Your task to perform on an android device: create a new album in the google photos Image 0: 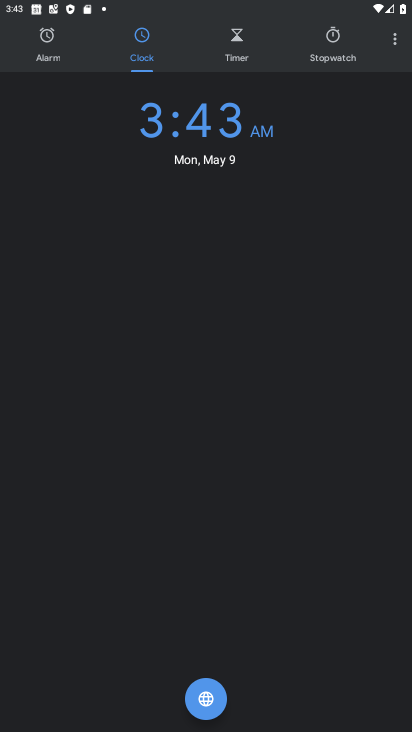
Step 0: press home button
Your task to perform on an android device: create a new album in the google photos Image 1: 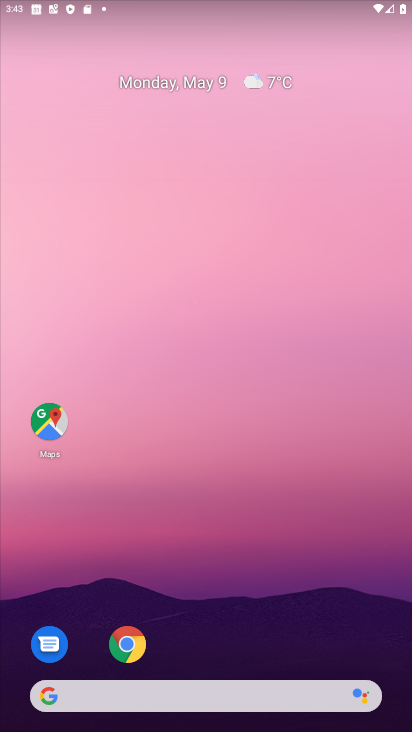
Step 1: drag from (288, 622) to (63, 111)
Your task to perform on an android device: create a new album in the google photos Image 2: 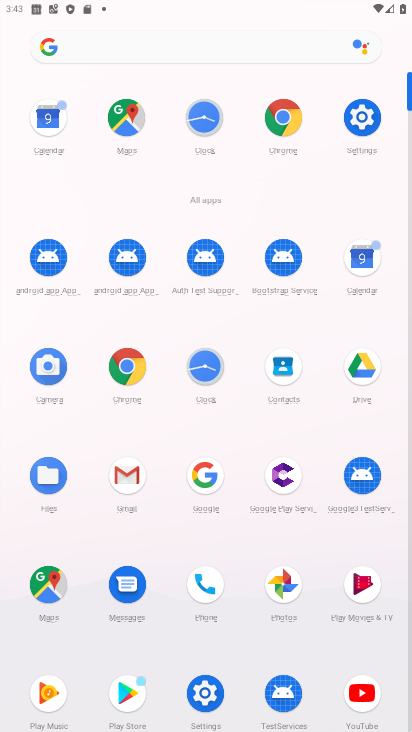
Step 2: click (281, 573)
Your task to perform on an android device: create a new album in the google photos Image 3: 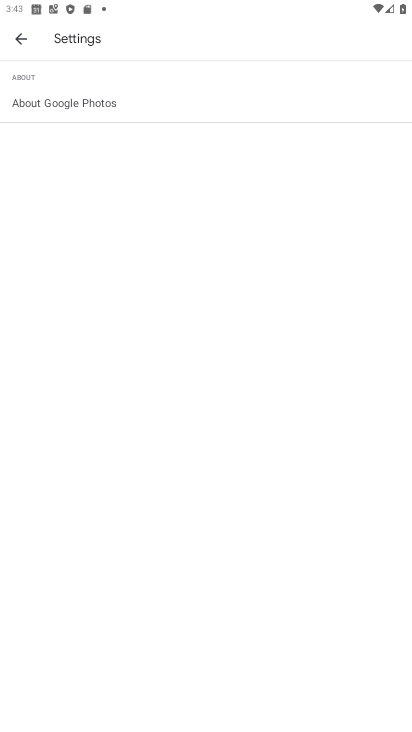
Step 3: click (20, 51)
Your task to perform on an android device: create a new album in the google photos Image 4: 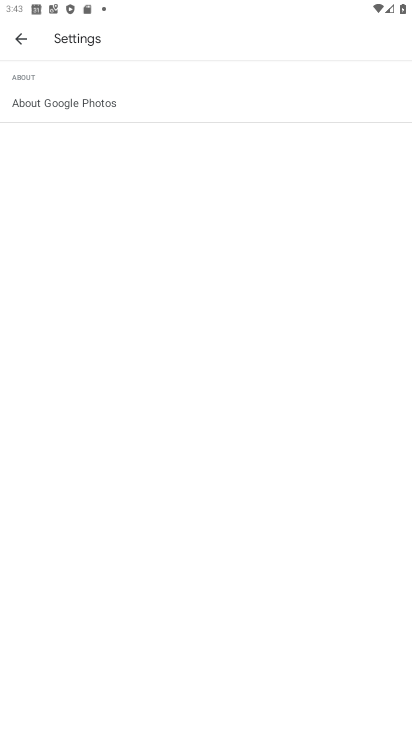
Step 4: click (20, 48)
Your task to perform on an android device: create a new album in the google photos Image 5: 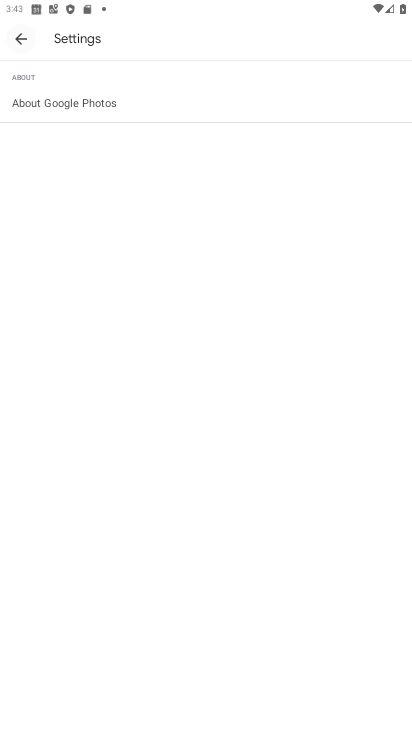
Step 5: click (20, 48)
Your task to perform on an android device: create a new album in the google photos Image 6: 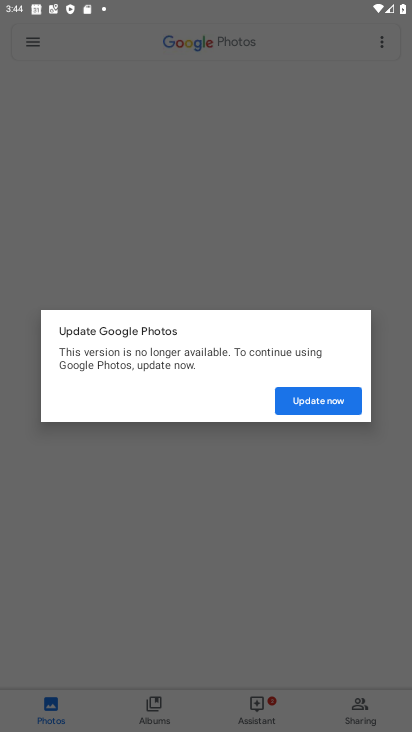
Step 6: click (303, 399)
Your task to perform on an android device: create a new album in the google photos Image 7: 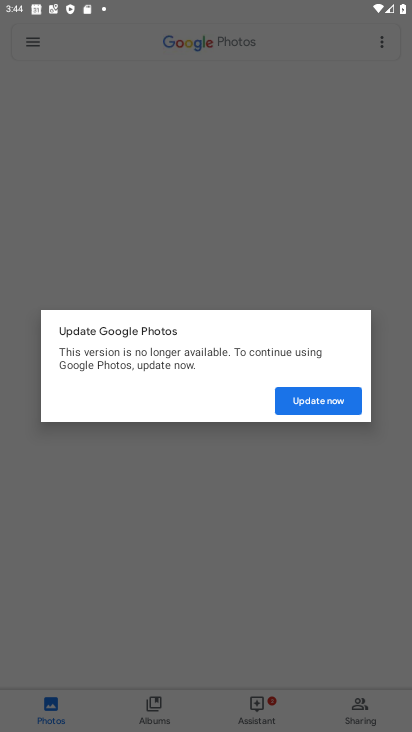
Step 7: click (303, 399)
Your task to perform on an android device: create a new album in the google photos Image 8: 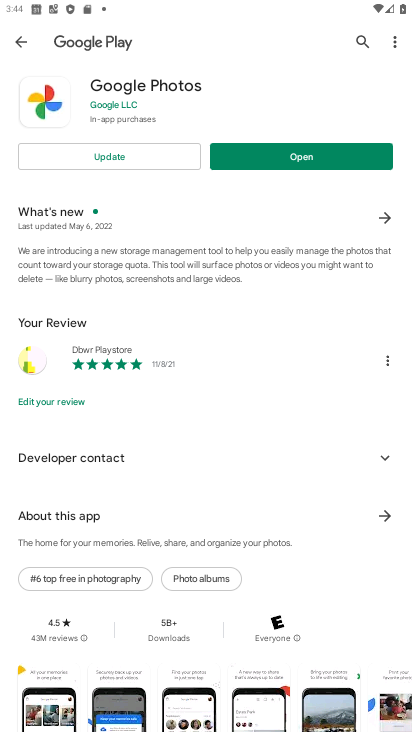
Step 8: click (315, 165)
Your task to perform on an android device: create a new album in the google photos Image 9: 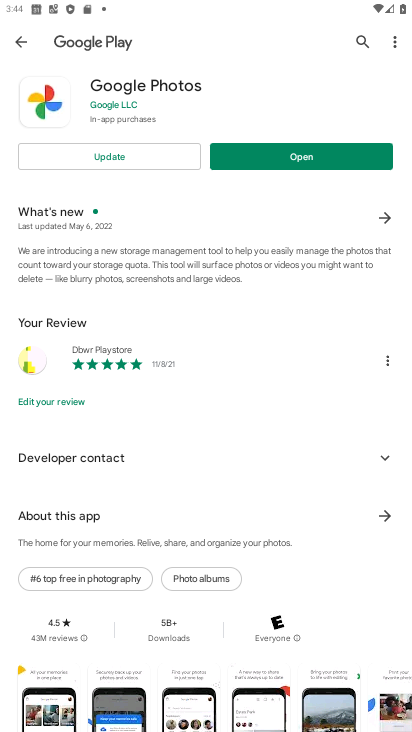
Step 9: click (315, 165)
Your task to perform on an android device: create a new album in the google photos Image 10: 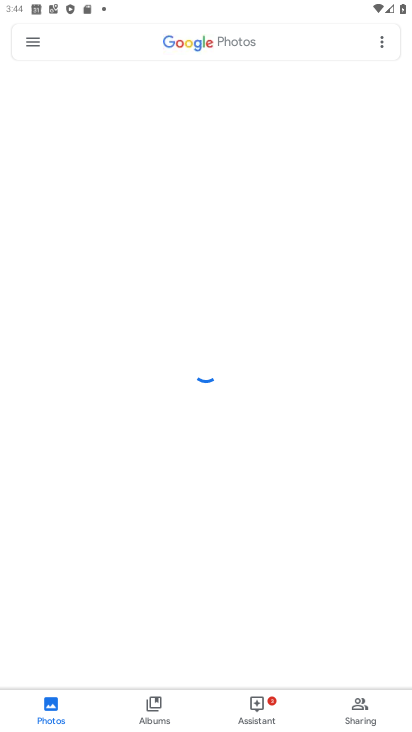
Step 10: press home button
Your task to perform on an android device: create a new album in the google photos Image 11: 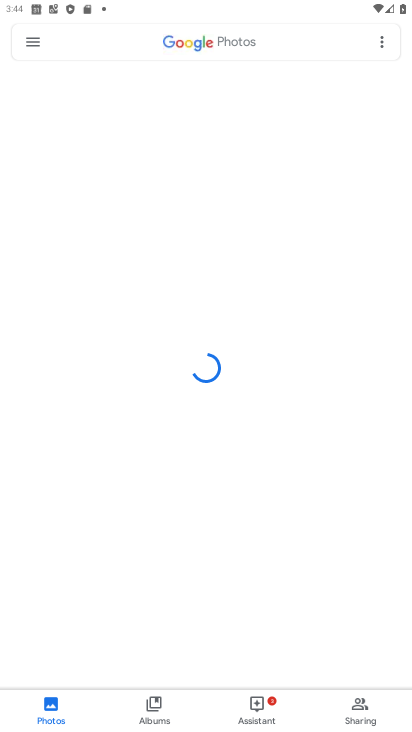
Step 11: press home button
Your task to perform on an android device: create a new album in the google photos Image 12: 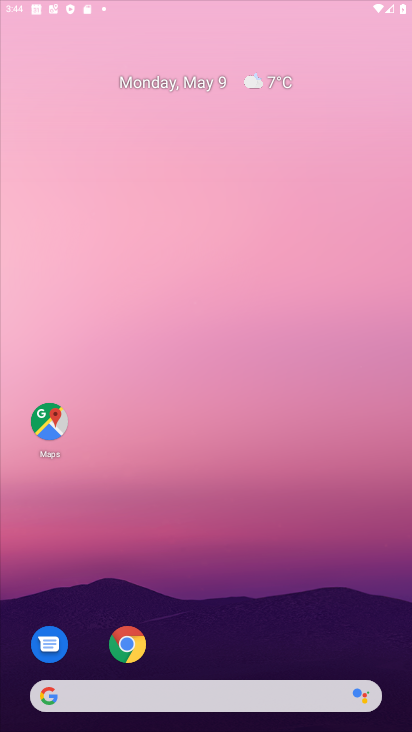
Step 12: press home button
Your task to perform on an android device: create a new album in the google photos Image 13: 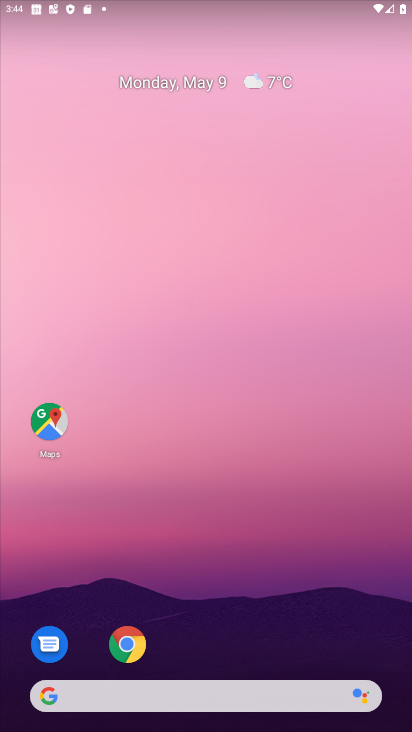
Step 13: drag from (292, 716) to (26, 64)
Your task to perform on an android device: create a new album in the google photos Image 14: 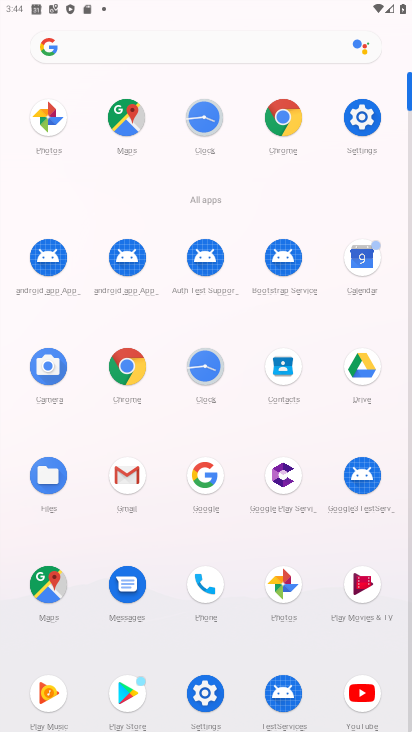
Step 14: click (288, 587)
Your task to perform on an android device: create a new album in the google photos Image 15: 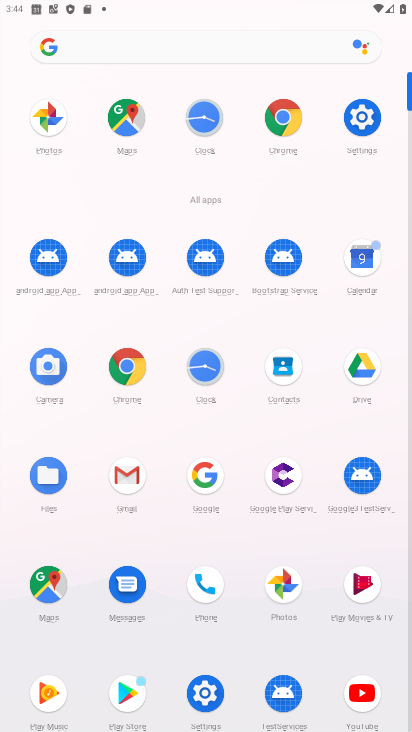
Step 15: click (288, 587)
Your task to perform on an android device: create a new album in the google photos Image 16: 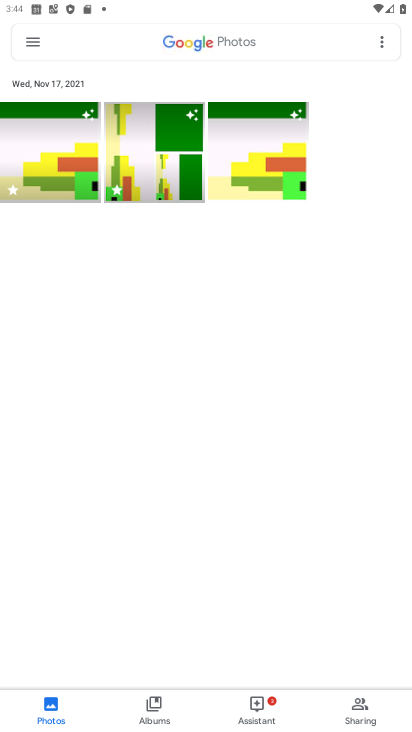
Step 16: click (154, 692)
Your task to perform on an android device: create a new album in the google photos Image 17: 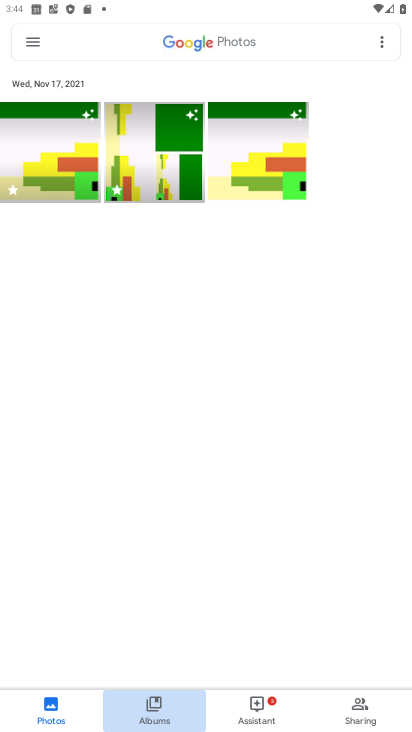
Step 17: click (162, 707)
Your task to perform on an android device: create a new album in the google photos Image 18: 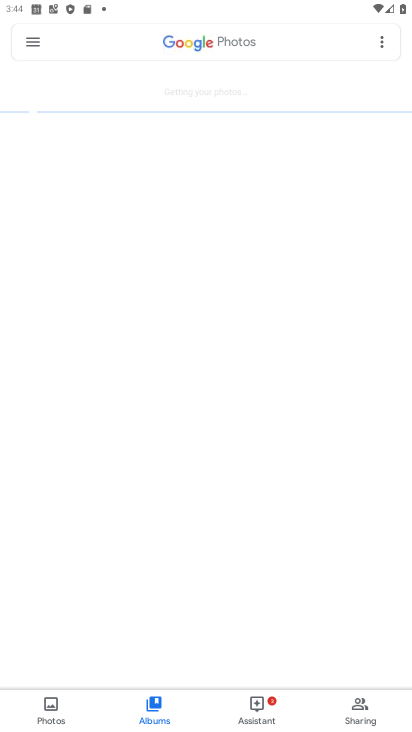
Step 18: click (167, 705)
Your task to perform on an android device: create a new album in the google photos Image 19: 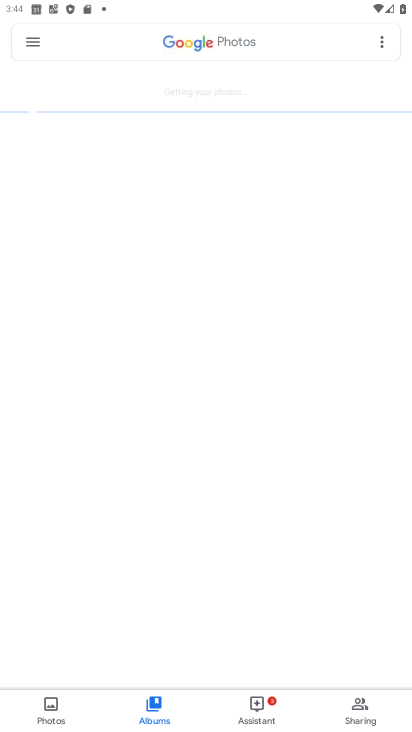
Step 19: click (171, 702)
Your task to perform on an android device: create a new album in the google photos Image 20: 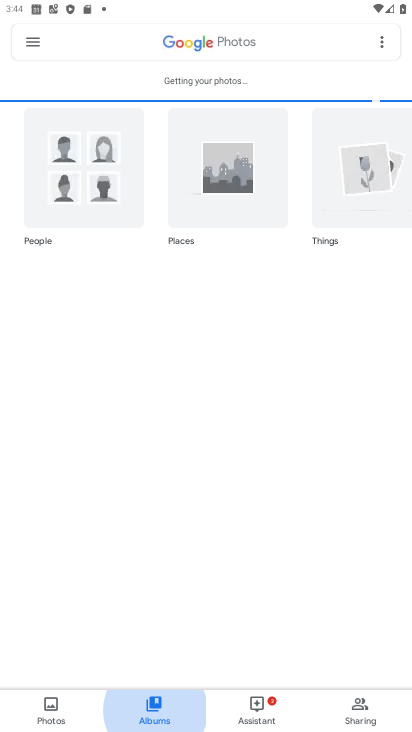
Step 20: click (171, 702)
Your task to perform on an android device: create a new album in the google photos Image 21: 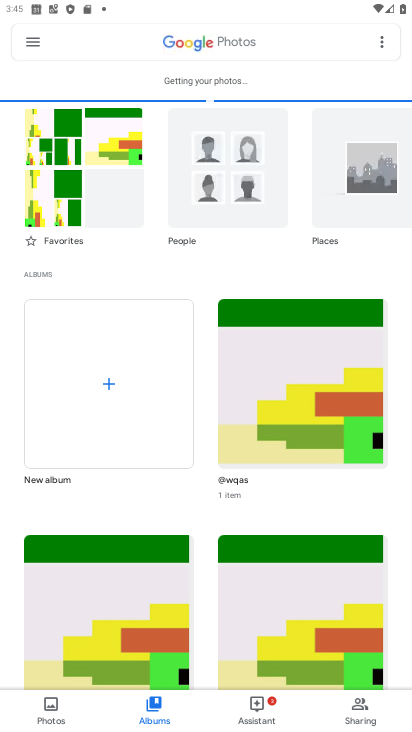
Step 21: click (112, 393)
Your task to perform on an android device: create a new album in the google photos Image 22: 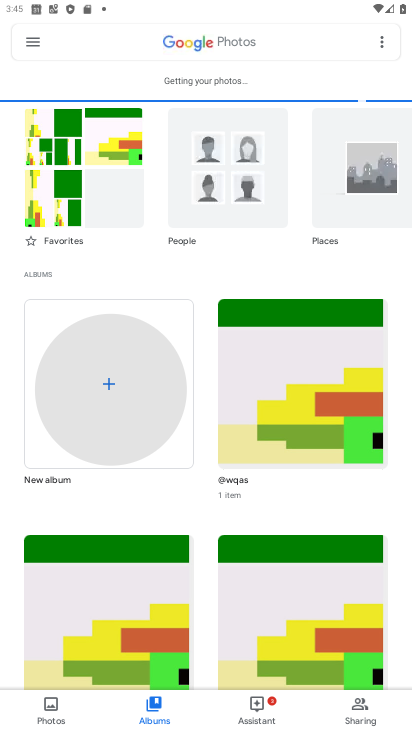
Step 22: click (112, 390)
Your task to perform on an android device: create a new album in the google photos Image 23: 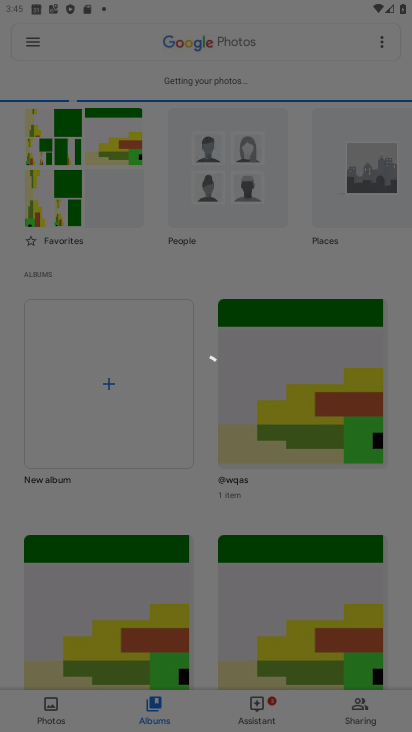
Step 23: click (112, 389)
Your task to perform on an android device: create a new album in the google photos Image 24: 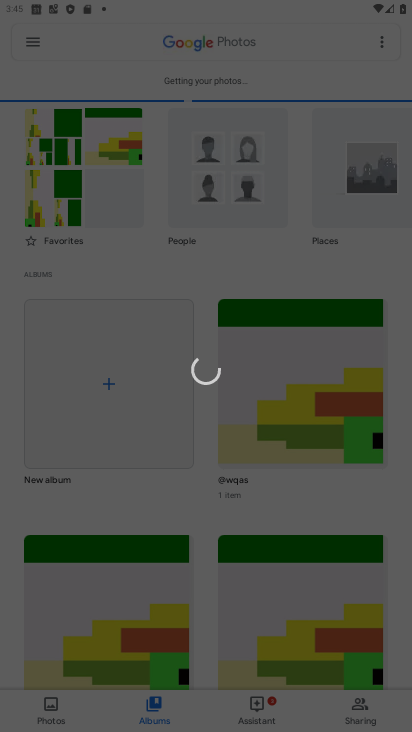
Step 24: click (112, 388)
Your task to perform on an android device: create a new album in the google photos Image 25: 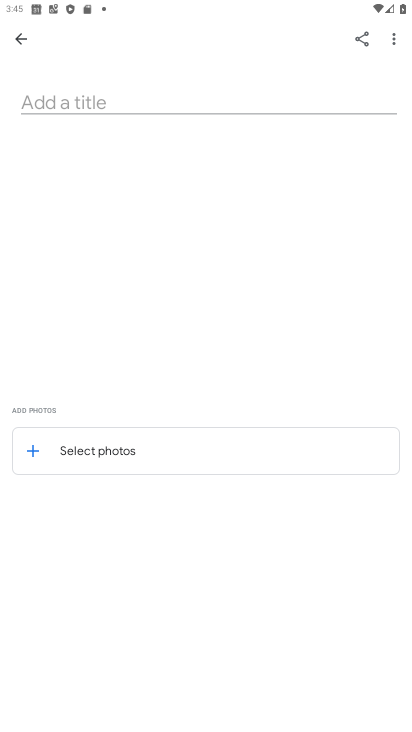
Step 25: click (132, 437)
Your task to perform on an android device: create a new album in the google photos Image 26: 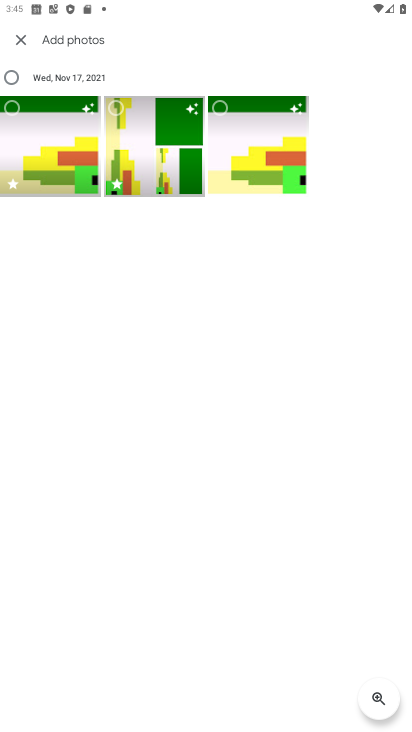
Step 26: click (17, 105)
Your task to perform on an android device: create a new album in the google photos Image 27: 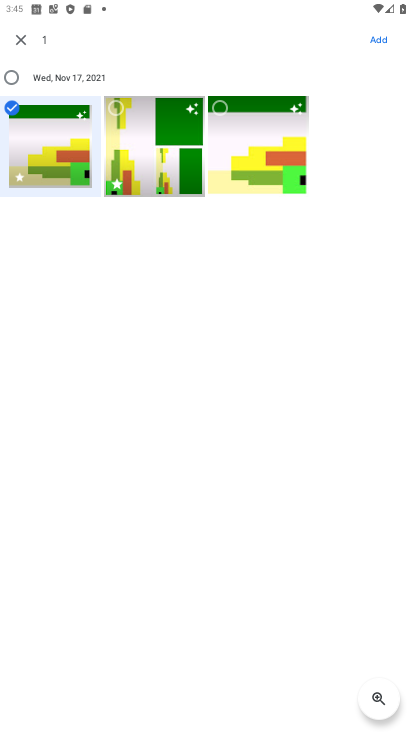
Step 27: click (126, 109)
Your task to perform on an android device: create a new album in the google photos Image 28: 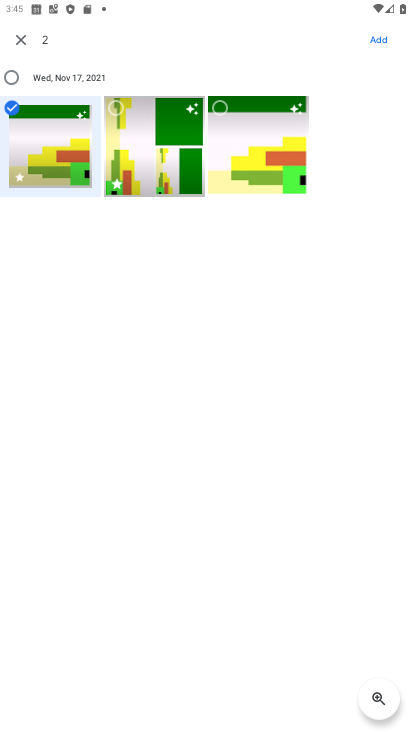
Step 28: click (215, 106)
Your task to perform on an android device: create a new album in the google photos Image 29: 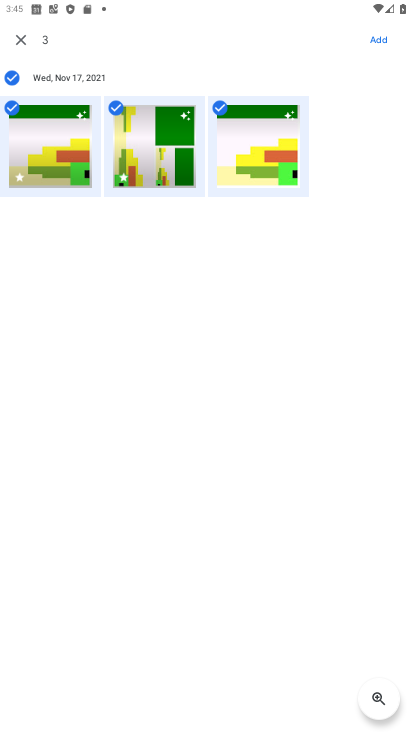
Step 29: click (221, 108)
Your task to perform on an android device: create a new album in the google photos Image 30: 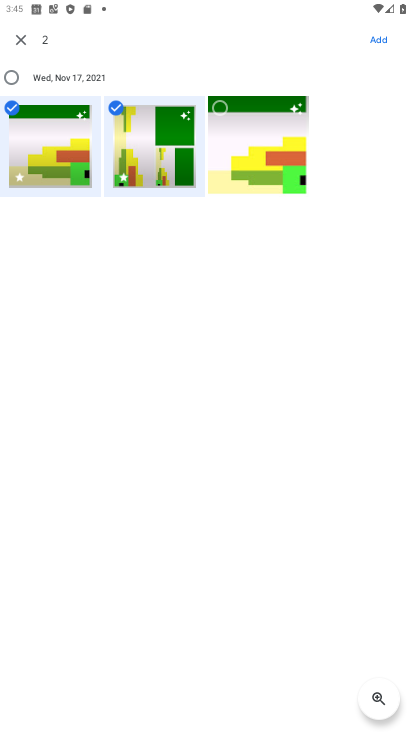
Step 30: click (221, 108)
Your task to perform on an android device: create a new album in the google photos Image 31: 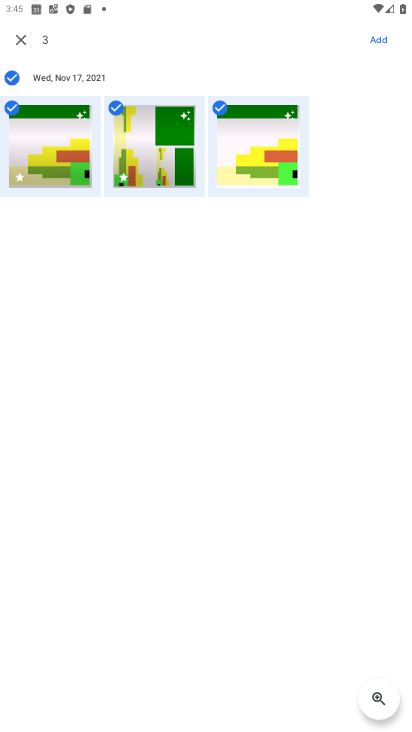
Step 31: click (374, 41)
Your task to perform on an android device: create a new album in the google photos Image 32: 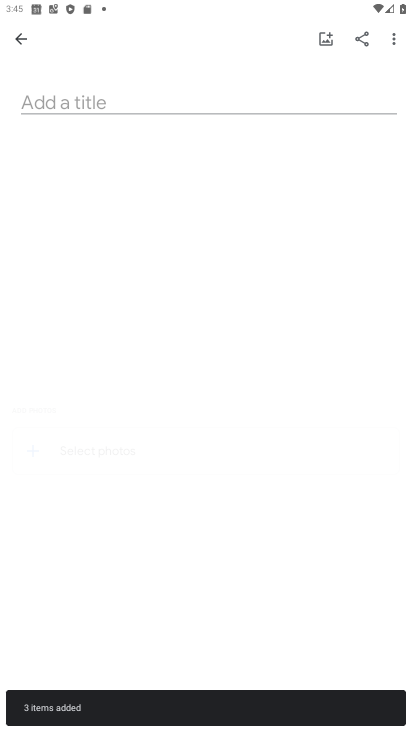
Step 32: click (41, 95)
Your task to perform on an android device: create a new album in the google photos Image 33: 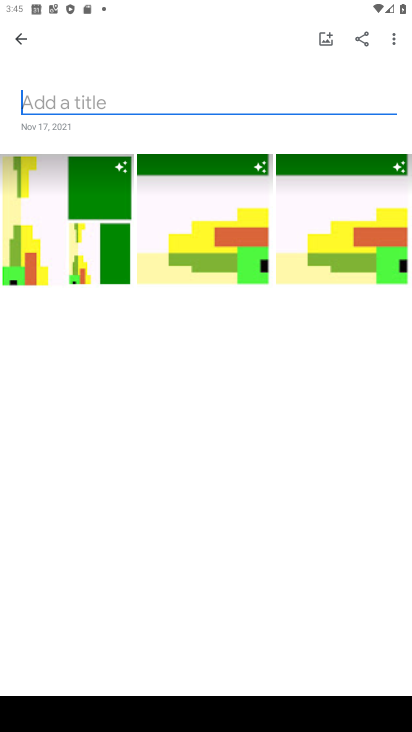
Step 33: type "ram"
Your task to perform on an android device: create a new album in the google photos Image 34: 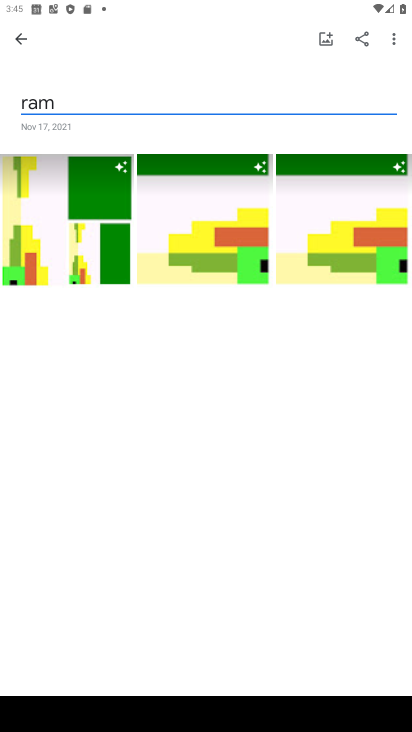
Step 34: click (277, 498)
Your task to perform on an android device: create a new album in the google photos Image 35: 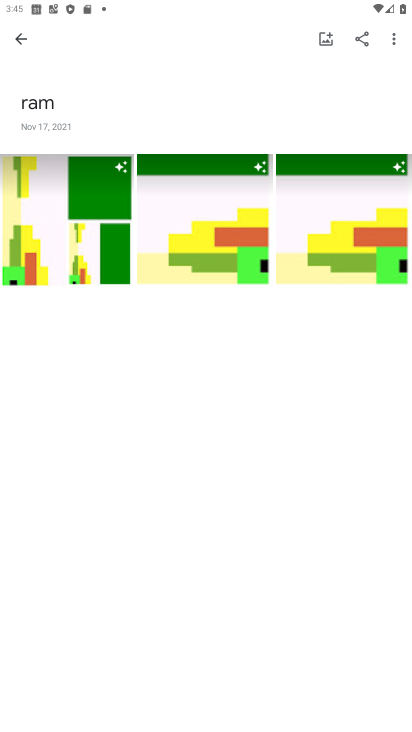
Step 35: task complete